Your task to perform on an android device: delete a single message in the gmail app Image 0: 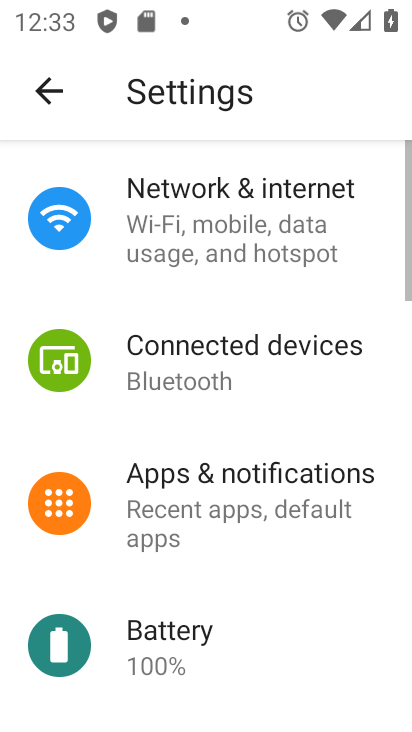
Step 0: press home button
Your task to perform on an android device: delete a single message in the gmail app Image 1: 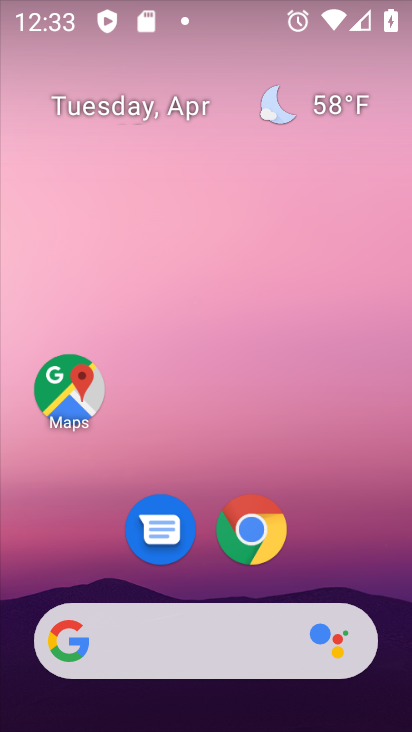
Step 1: drag from (385, 592) to (230, 78)
Your task to perform on an android device: delete a single message in the gmail app Image 2: 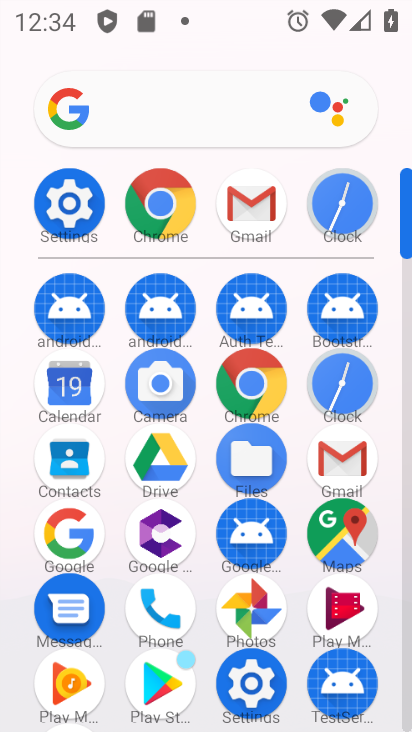
Step 2: click (329, 464)
Your task to perform on an android device: delete a single message in the gmail app Image 3: 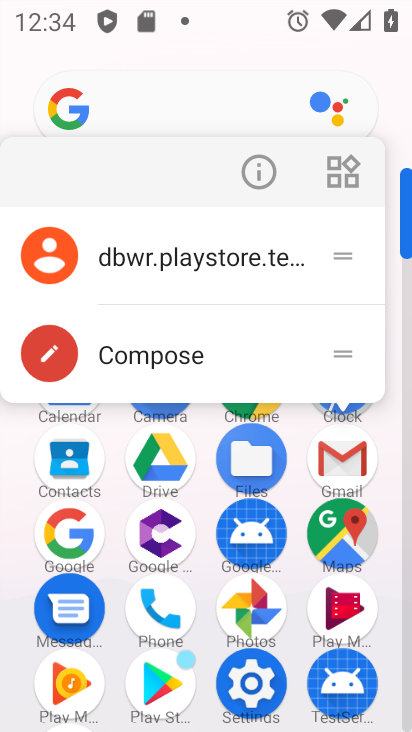
Step 3: click (324, 457)
Your task to perform on an android device: delete a single message in the gmail app Image 4: 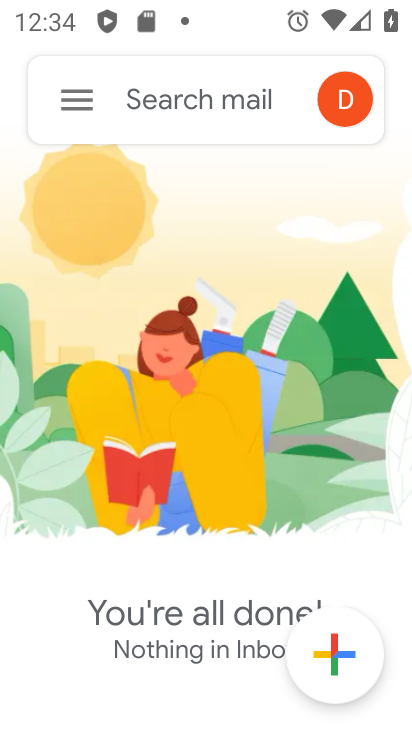
Step 4: task complete